Your task to perform on an android device: What's the weather? Image 0: 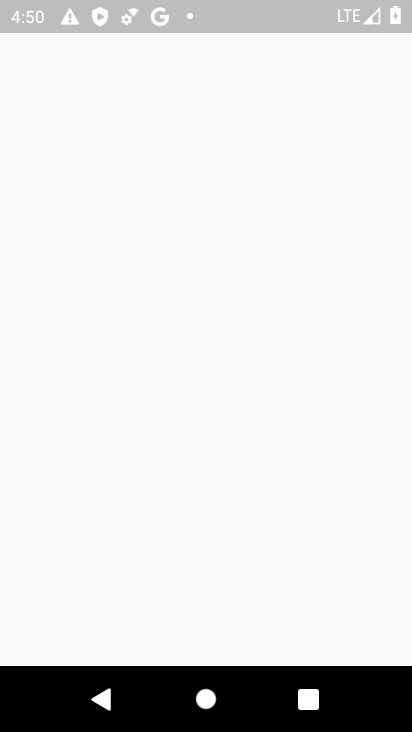
Step 0: press home button
Your task to perform on an android device: What's the weather? Image 1: 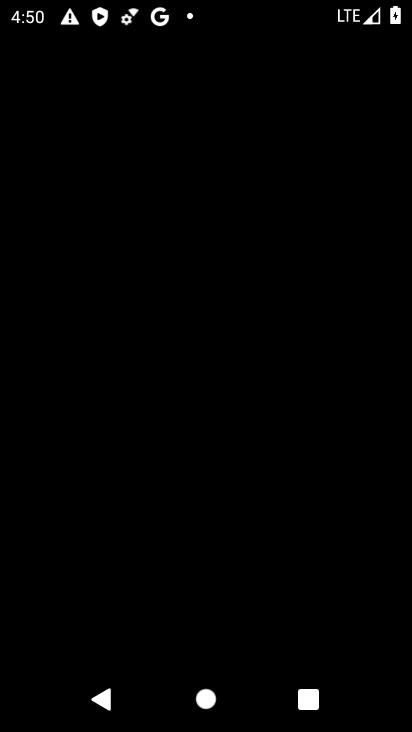
Step 1: press home button
Your task to perform on an android device: What's the weather? Image 2: 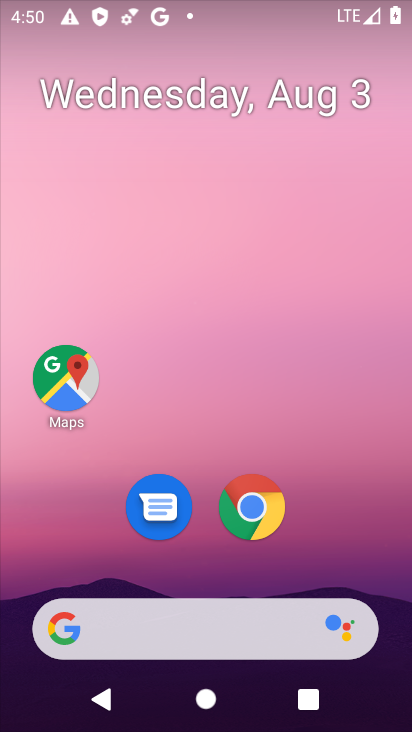
Step 2: drag from (329, 532) to (363, 41)
Your task to perform on an android device: What's the weather? Image 3: 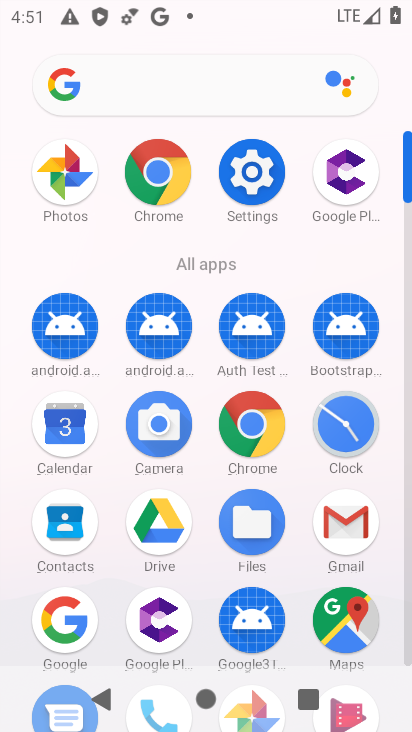
Step 3: click (152, 168)
Your task to perform on an android device: What's the weather? Image 4: 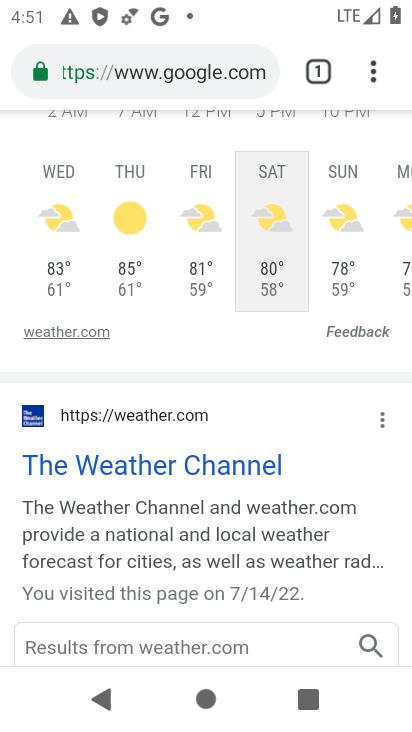
Step 4: click (78, 205)
Your task to perform on an android device: What's the weather? Image 5: 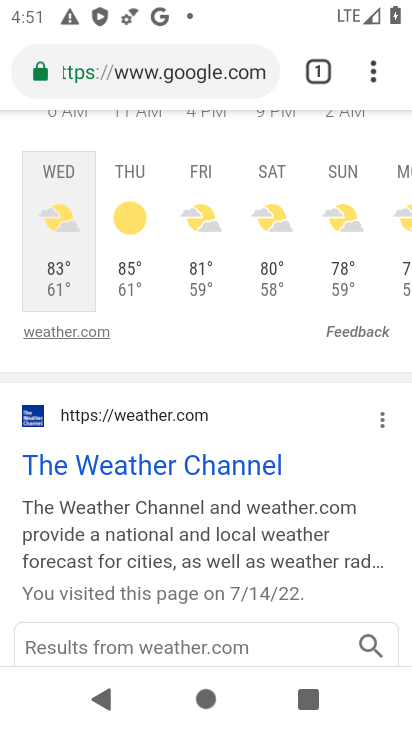
Step 5: task complete